Your task to perform on an android device: change the upload size in google photos Image 0: 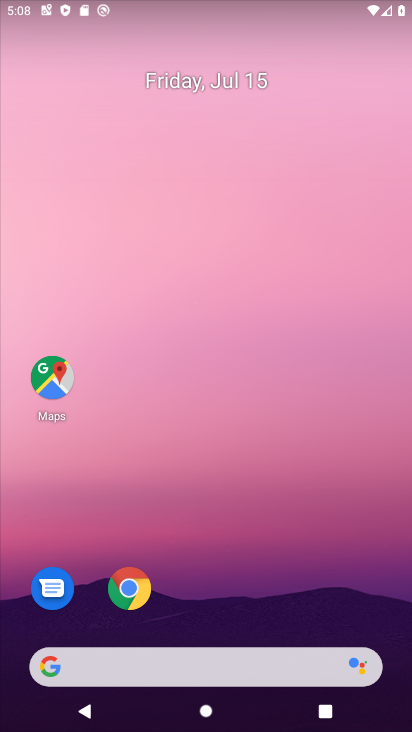
Step 0: drag from (268, 635) to (375, 89)
Your task to perform on an android device: change the upload size in google photos Image 1: 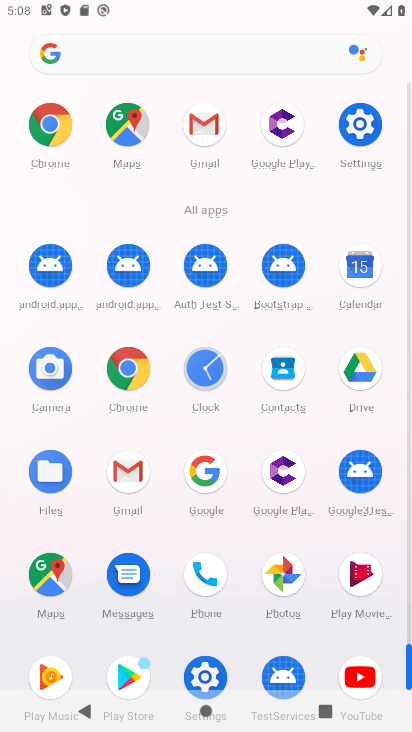
Step 1: click (271, 566)
Your task to perform on an android device: change the upload size in google photos Image 2: 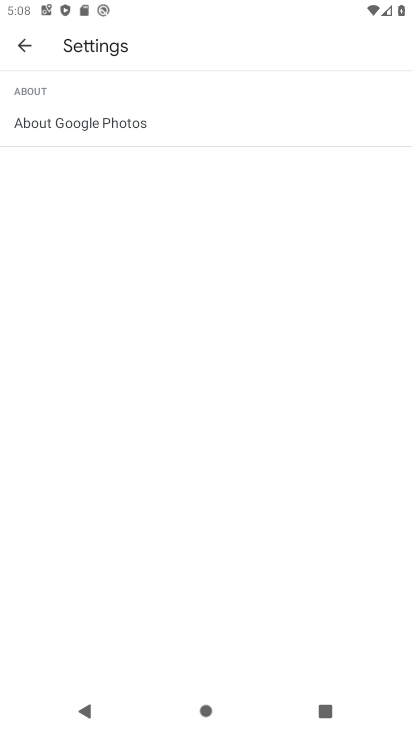
Step 2: press home button
Your task to perform on an android device: change the upload size in google photos Image 3: 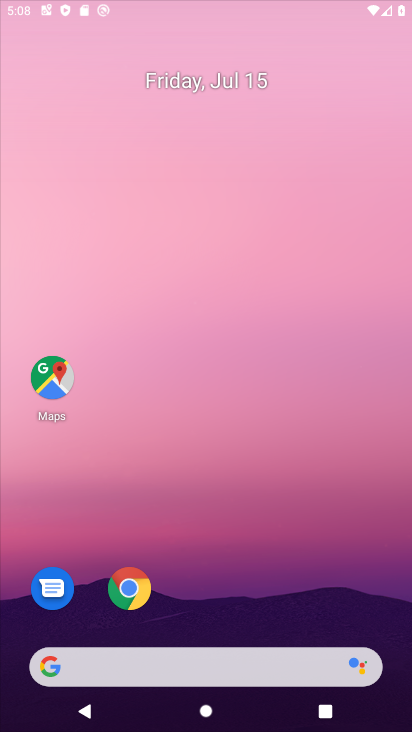
Step 3: drag from (234, 583) to (255, 78)
Your task to perform on an android device: change the upload size in google photos Image 4: 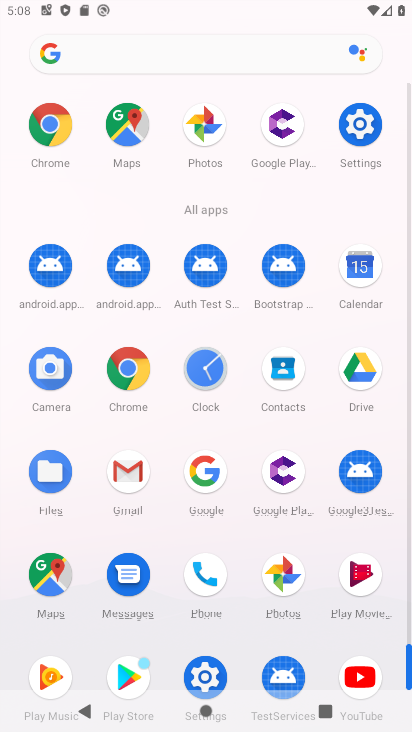
Step 4: click (276, 566)
Your task to perform on an android device: change the upload size in google photos Image 5: 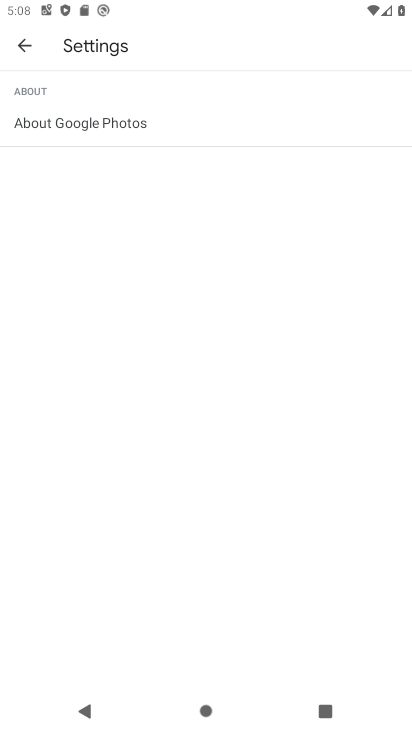
Step 5: press back button
Your task to perform on an android device: change the upload size in google photos Image 6: 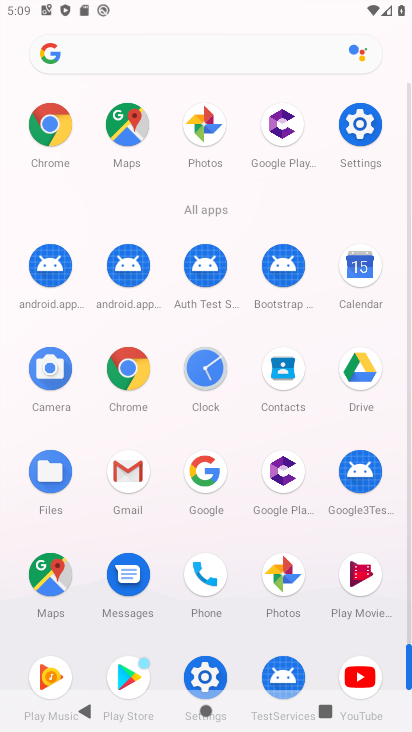
Step 6: click (286, 569)
Your task to perform on an android device: change the upload size in google photos Image 7: 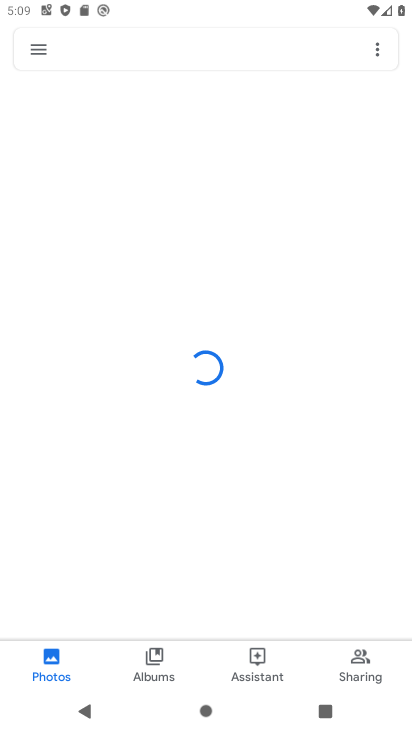
Step 7: click (39, 53)
Your task to perform on an android device: change the upload size in google photos Image 8: 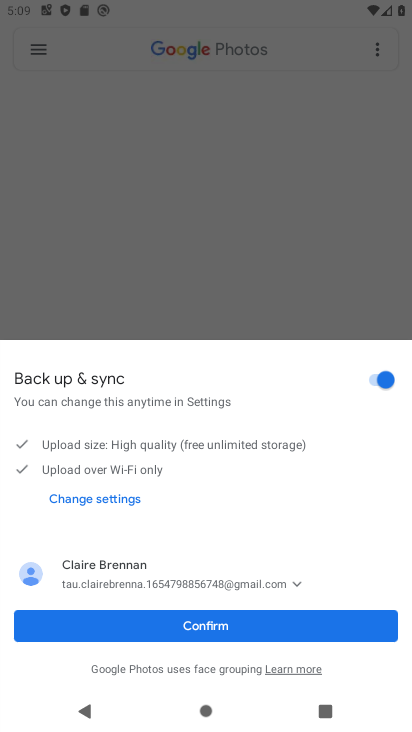
Step 8: click (184, 627)
Your task to perform on an android device: change the upload size in google photos Image 9: 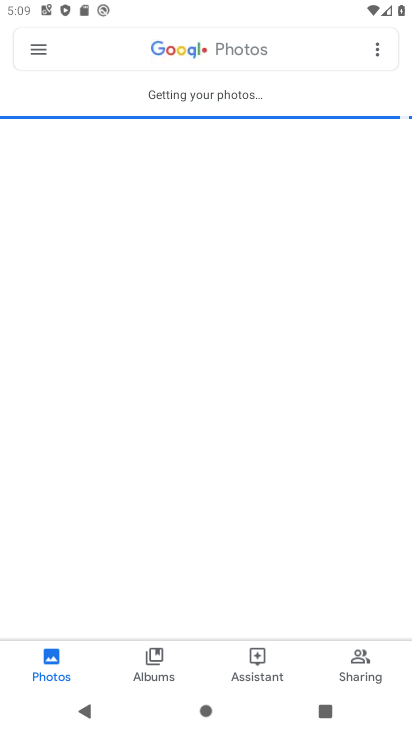
Step 9: click (33, 44)
Your task to perform on an android device: change the upload size in google photos Image 10: 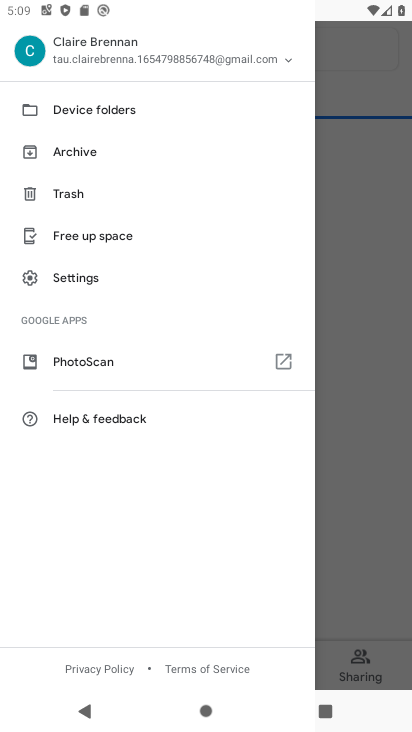
Step 10: click (91, 277)
Your task to perform on an android device: change the upload size in google photos Image 11: 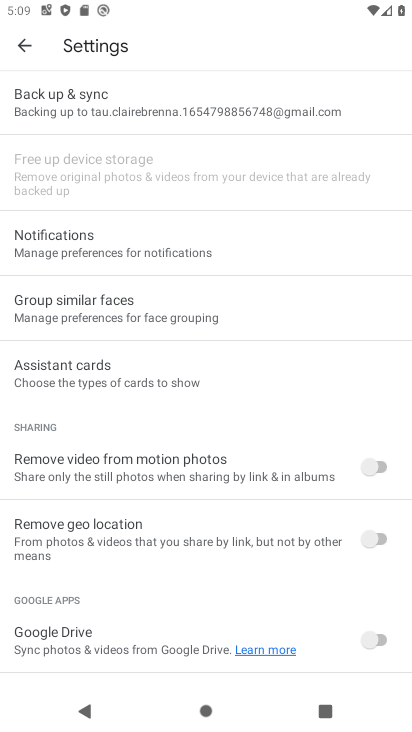
Step 11: click (113, 108)
Your task to perform on an android device: change the upload size in google photos Image 12: 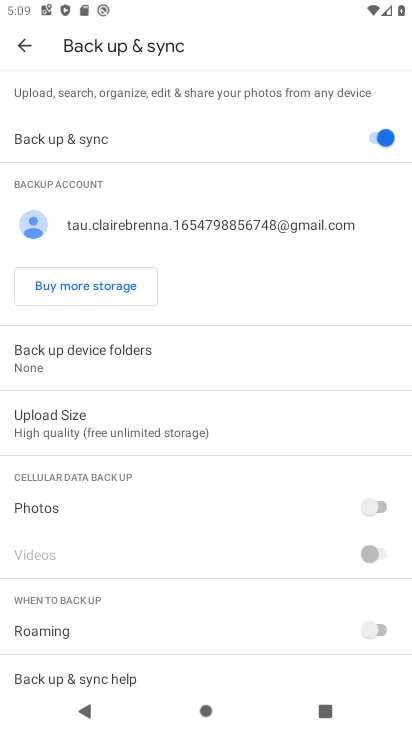
Step 12: click (92, 433)
Your task to perform on an android device: change the upload size in google photos Image 13: 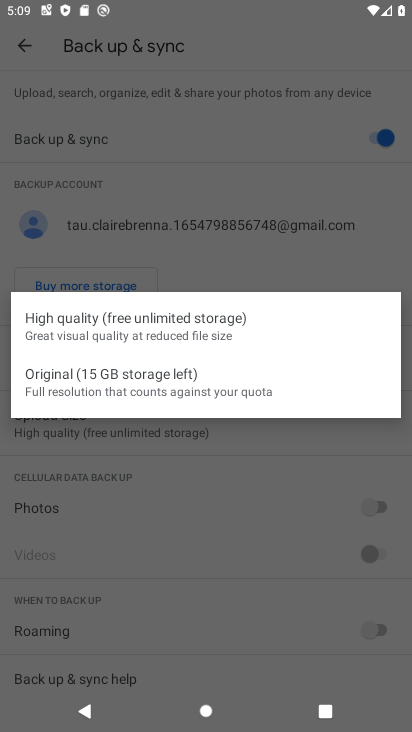
Step 13: click (81, 390)
Your task to perform on an android device: change the upload size in google photos Image 14: 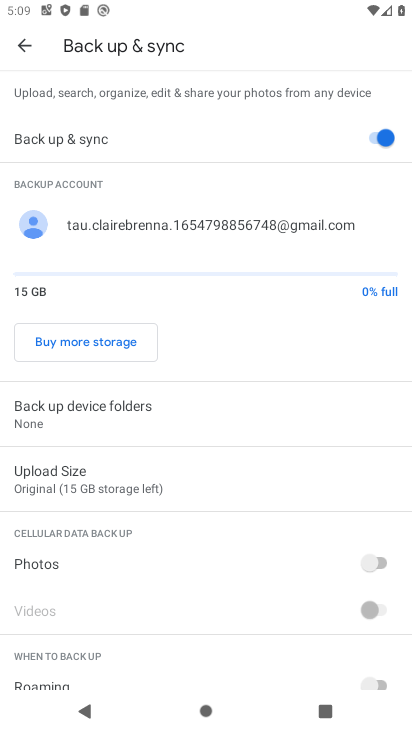
Step 14: task complete